Your task to perform on an android device: open device folders in google photos Image 0: 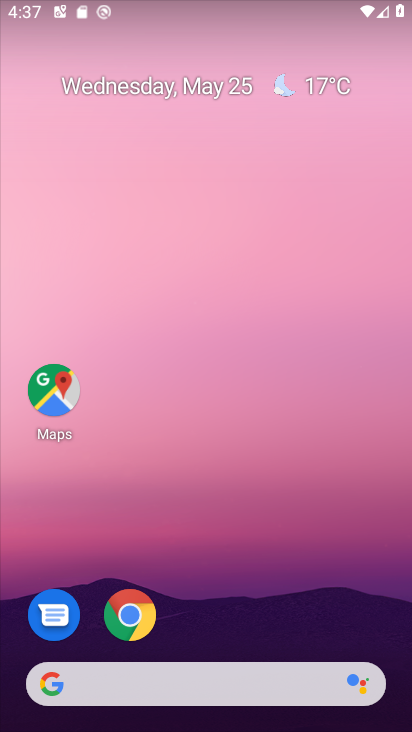
Step 0: drag from (295, 598) to (208, 95)
Your task to perform on an android device: open device folders in google photos Image 1: 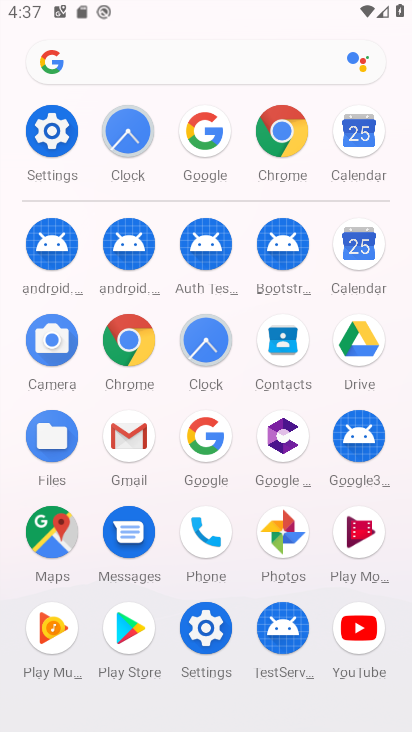
Step 1: click (273, 515)
Your task to perform on an android device: open device folders in google photos Image 2: 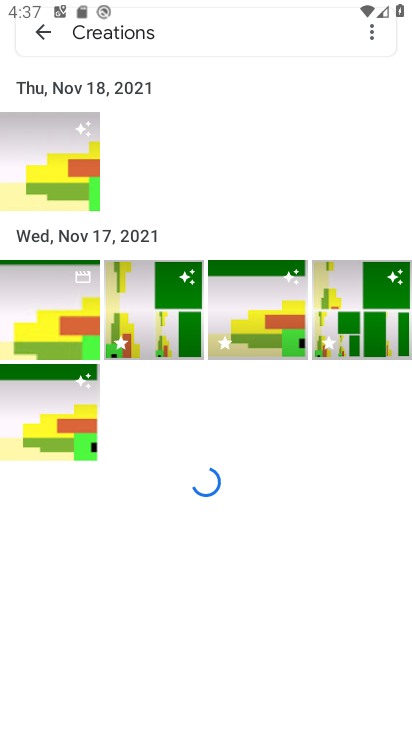
Step 2: click (37, 30)
Your task to perform on an android device: open device folders in google photos Image 3: 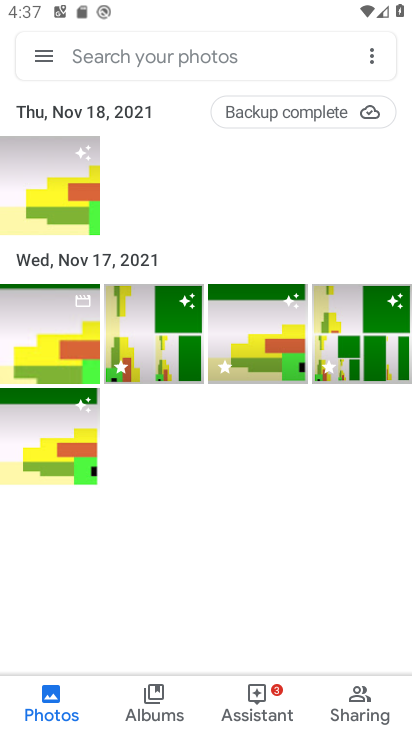
Step 3: click (41, 53)
Your task to perform on an android device: open device folders in google photos Image 4: 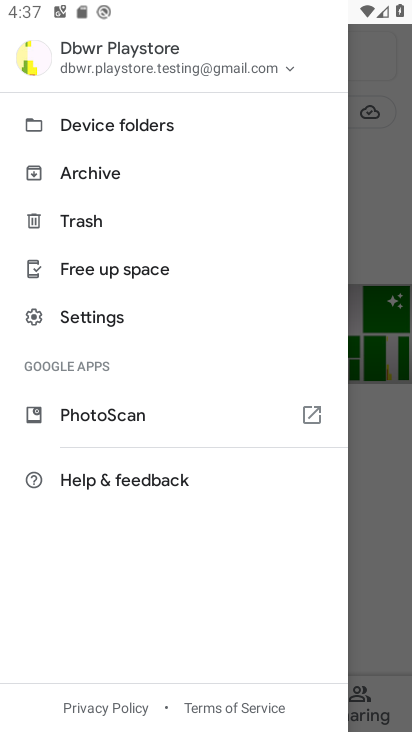
Step 4: click (120, 120)
Your task to perform on an android device: open device folders in google photos Image 5: 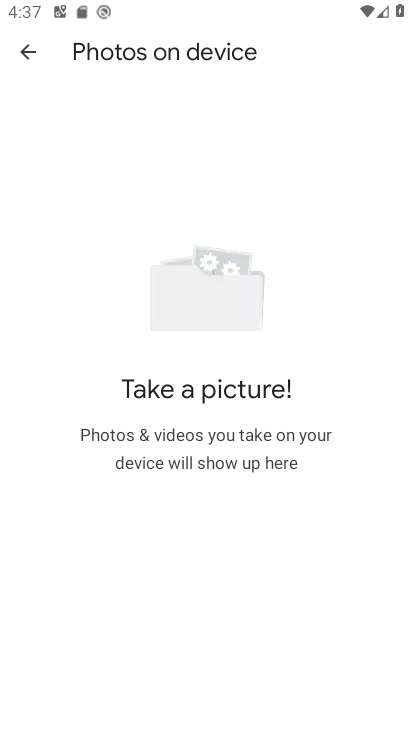
Step 5: task complete